Your task to perform on an android device: Open Youtube and go to "Your channel" Image 0: 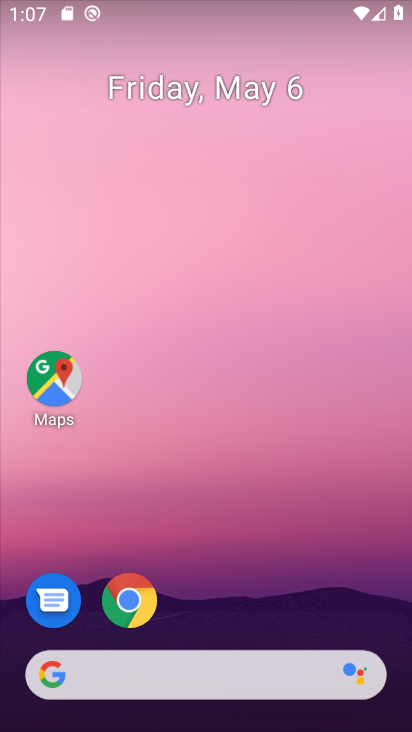
Step 0: drag from (182, 658) to (342, 26)
Your task to perform on an android device: Open Youtube and go to "Your channel" Image 1: 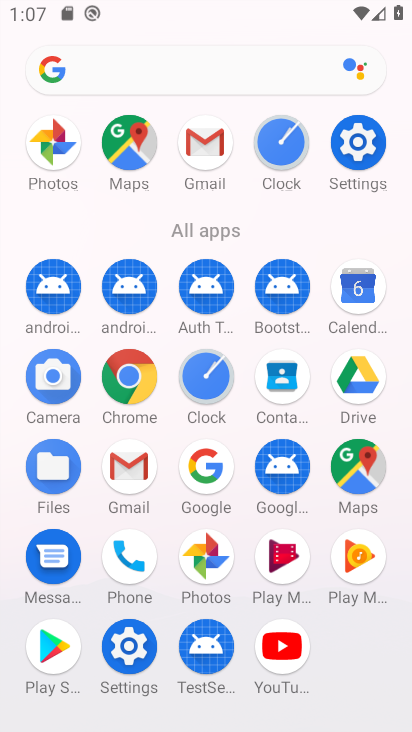
Step 1: click (342, 48)
Your task to perform on an android device: Open Youtube and go to "Your channel" Image 2: 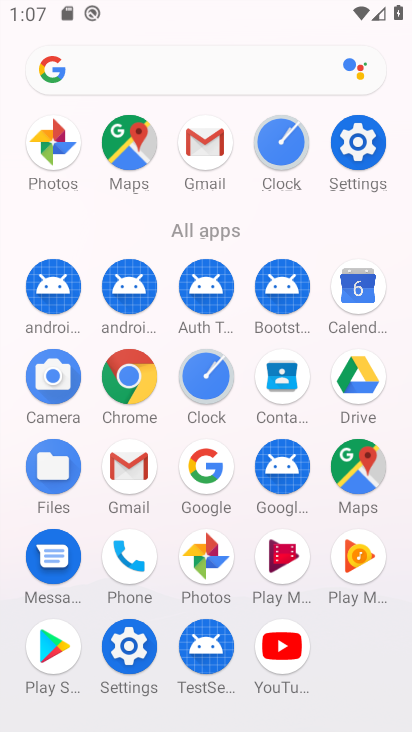
Step 2: click (283, 647)
Your task to perform on an android device: Open Youtube and go to "Your channel" Image 3: 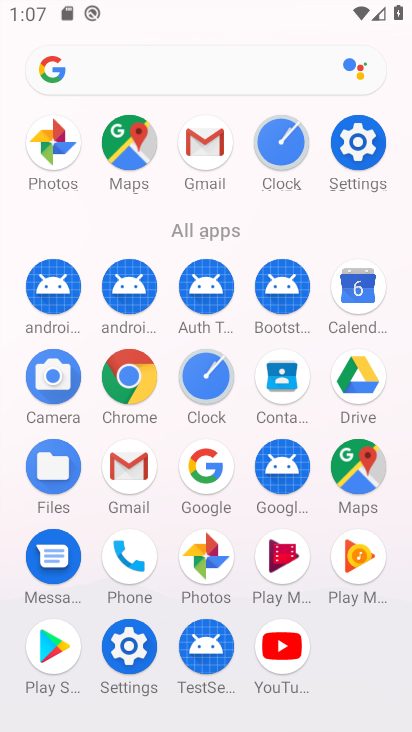
Step 3: click (272, 648)
Your task to perform on an android device: Open Youtube and go to "Your channel" Image 4: 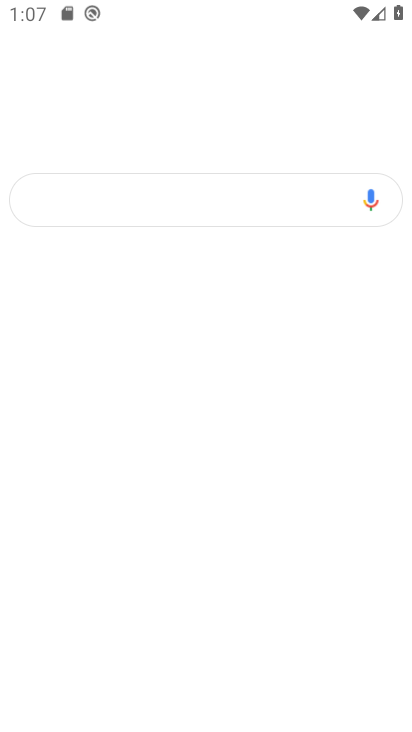
Step 4: click (272, 648)
Your task to perform on an android device: Open Youtube and go to "Your channel" Image 5: 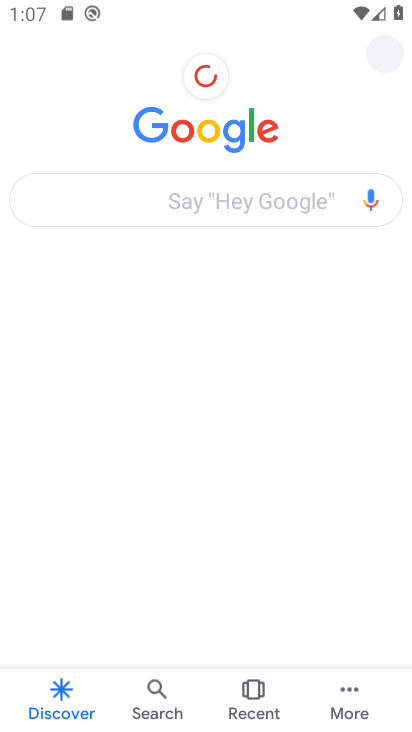
Step 5: press back button
Your task to perform on an android device: Open Youtube and go to "Your channel" Image 6: 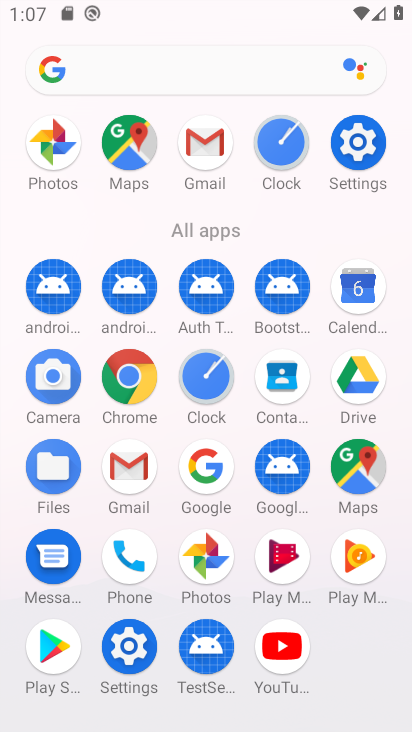
Step 6: click (268, 654)
Your task to perform on an android device: Open Youtube and go to "Your channel" Image 7: 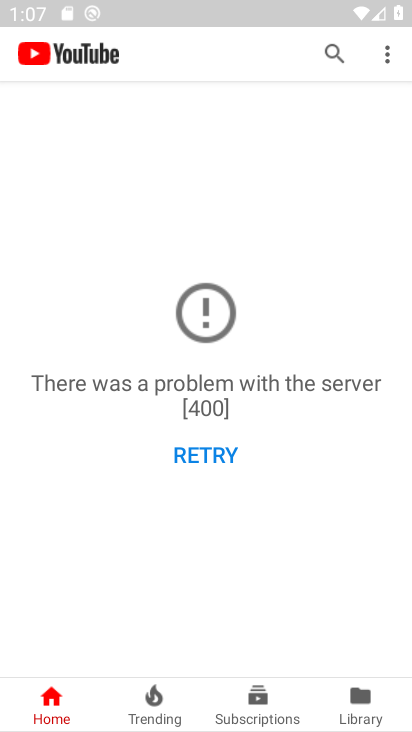
Step 7: click (366, 702)
Your task to perform on an android device: Open Youtube and go to "Your channel" Image 8: 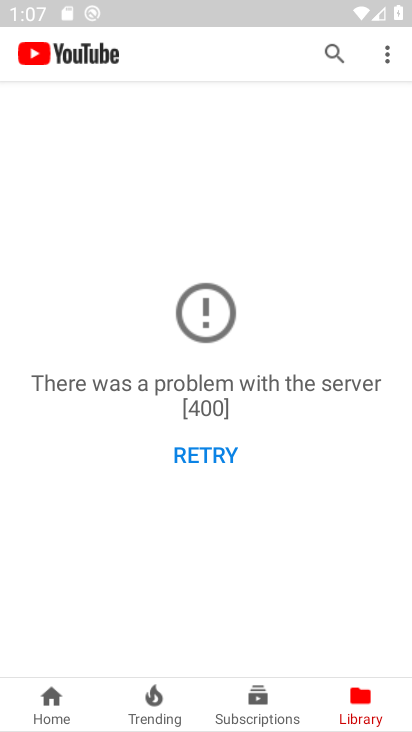
Step 8: click (387, 65)
Your task to perform on an android device: Open Youtube and go to "Your channel" Image 9: 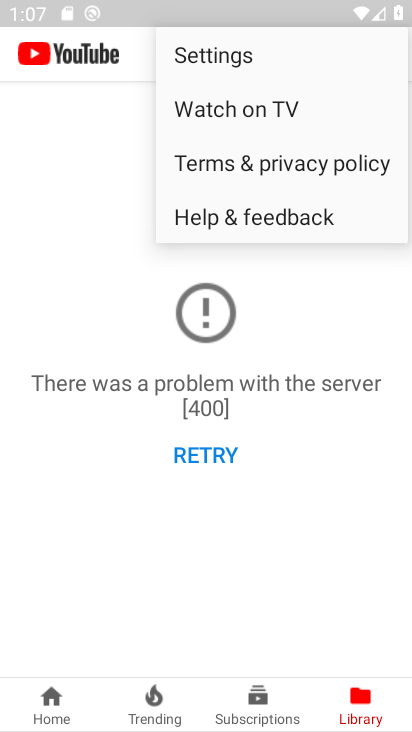
Step 9: click (369, 68)
Your task to perform on an android device: Open Youtube and go to "Your channel" Image 10: 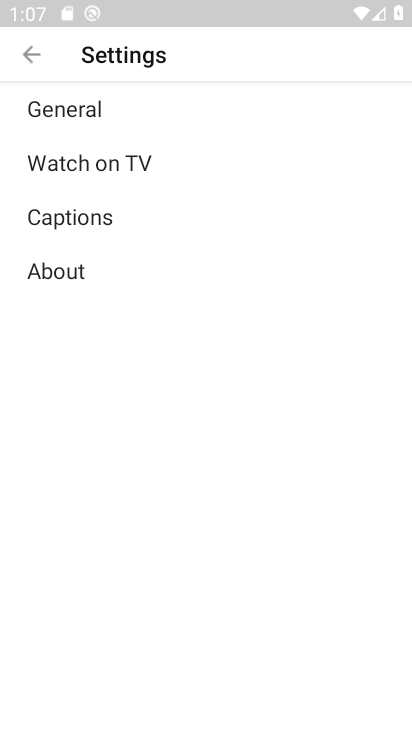
Step 10: click (290, 125)
Your task to perform on an android device: Open Youtube and go to "Your channel" Image 11: 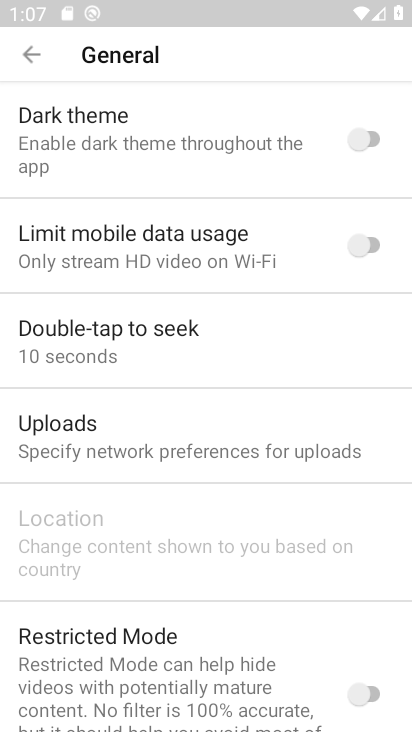
Step 11: task complete